Your task to perform on an android device: Open the Play Movies app and select the watchlist tab. Image 0: 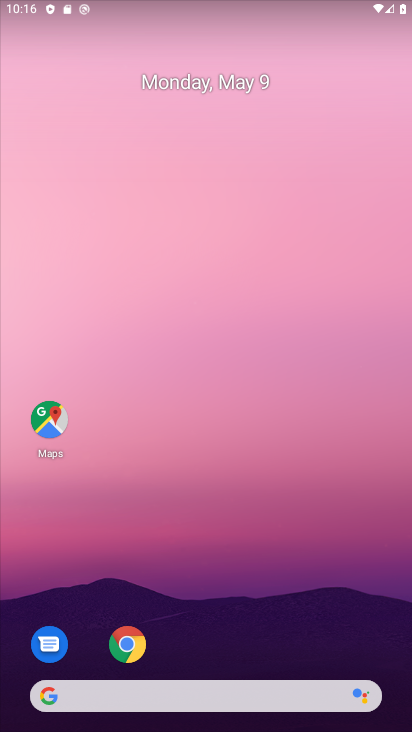
Step 0: click (360, 251)
Your task to perform on an android device: Open the Play Movies app and select the watchlist tab. Image 1: 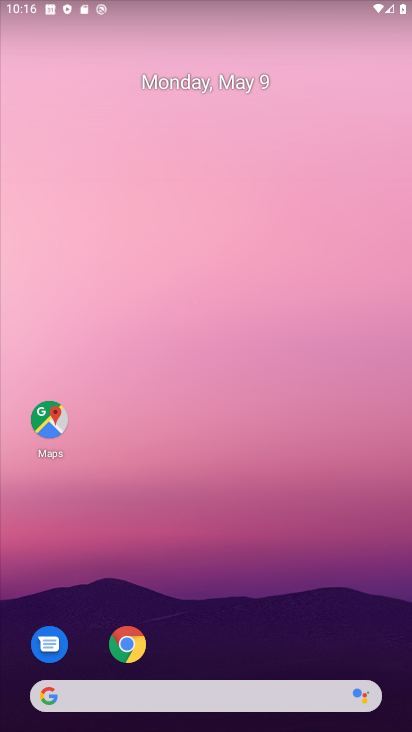
Step 1: drag from (217, 633) to (266, 1)
Your task to perform on an android device: Open the Play Movies app and select the watchlist tab. Image 2: 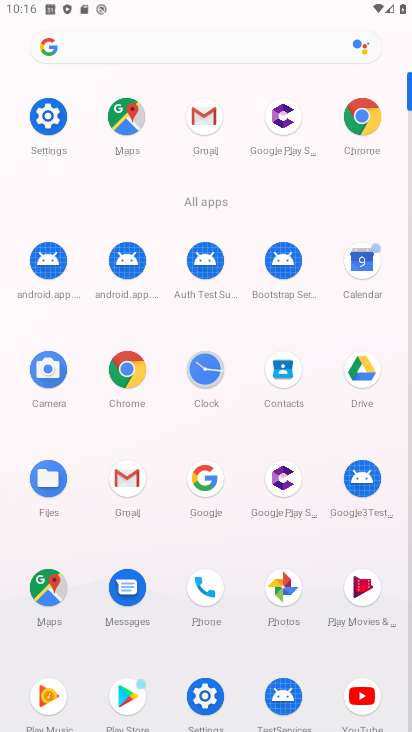
Step 2: click (375, 589)
Your task to perform on an android device: Open the Play Movies app and select the watchlist tab. Image 3: 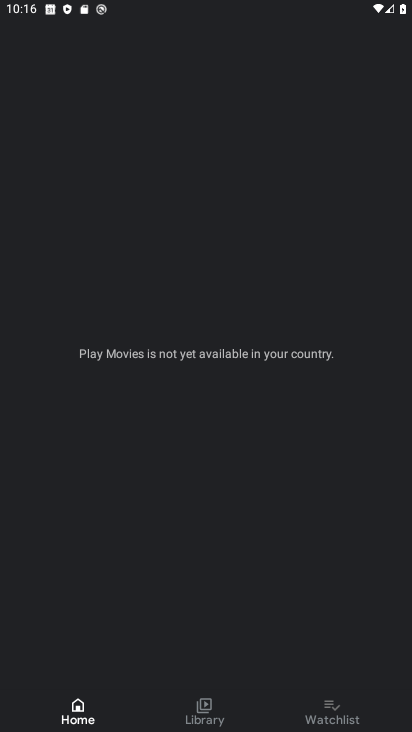
Step 3: click (347, 717)
Your task to perform on an android device: Open the Play Movies app and select the watchlist tab. Image 4: 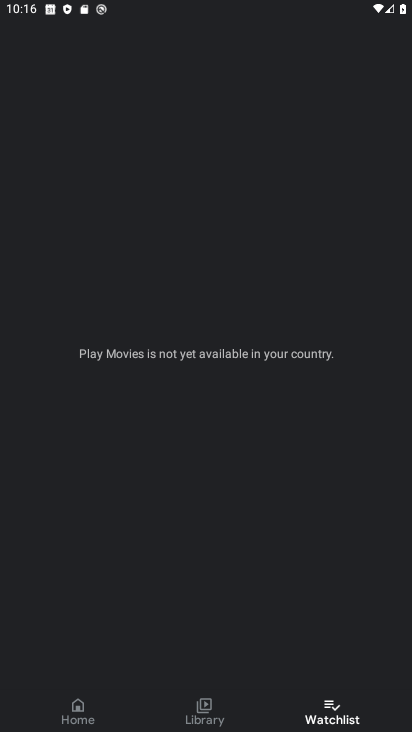
Step 4: task complete